Your task to perform on an android device: Open internet settings Image 0: 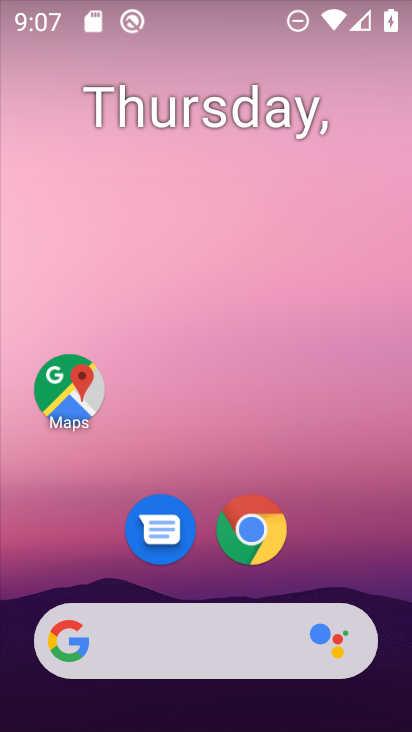
Step 0: drag from (207, 718) to (211, 155)
Your task to perform on an android device: Open internet settings Image 1: 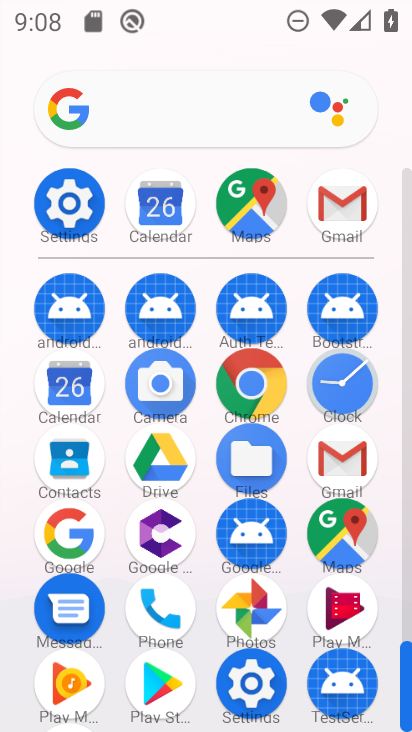
Step 1: click (69, 204)
Your task to perform on an android device: Open internet settings Image 2: 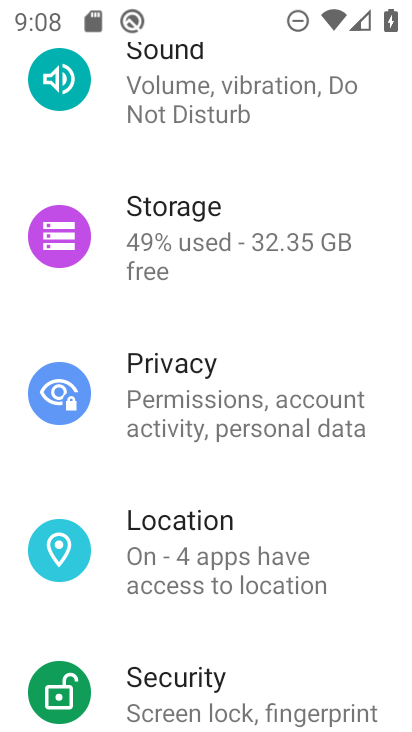
Step 2: drag from (346, 114) to (322, 631)
Your task to perform on an android device: Open internet settings Image 3: 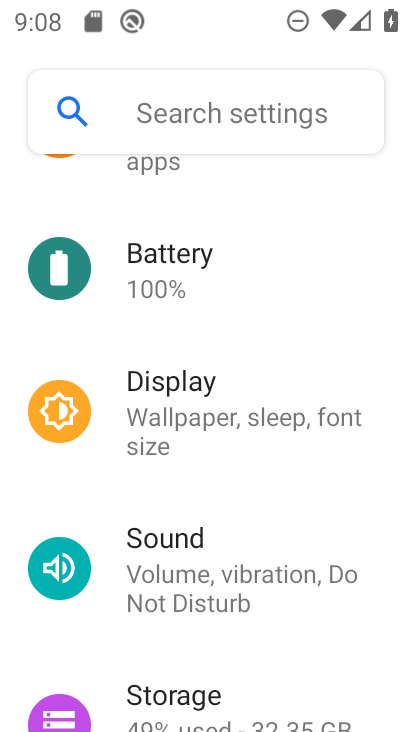
Step 3: drag from (283, 189) to (280, 638)
Your task to perform on an android device: Open internet settings Image 4: 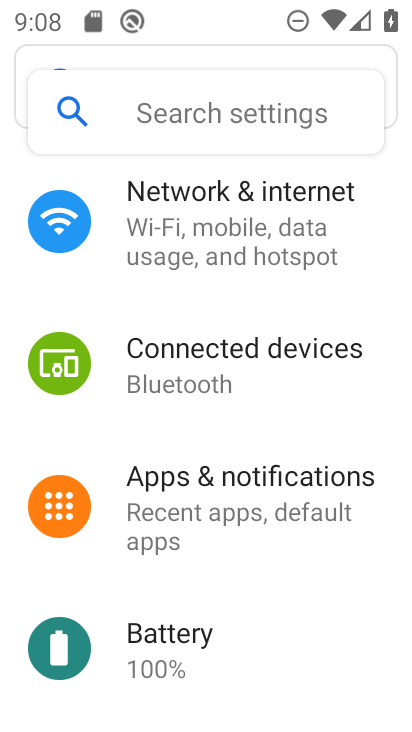
Step 4: drag from (275, 178) to (267, 619)
Your task to perform on an android device: Open internet settings Image 5: 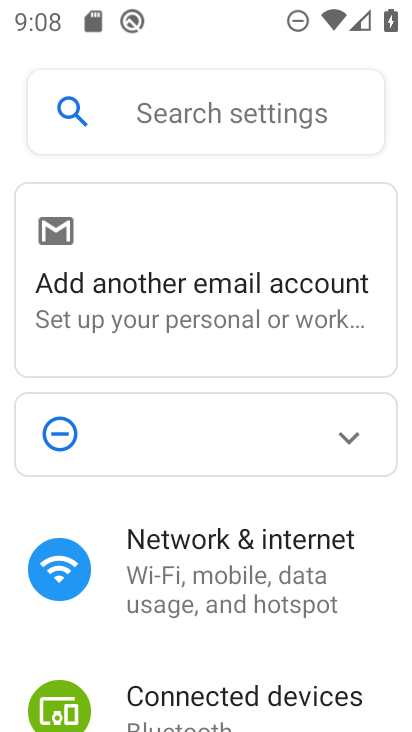
Step 5: click (226, 559)
Your task to perform on an android device: Open internet settings Image 6: 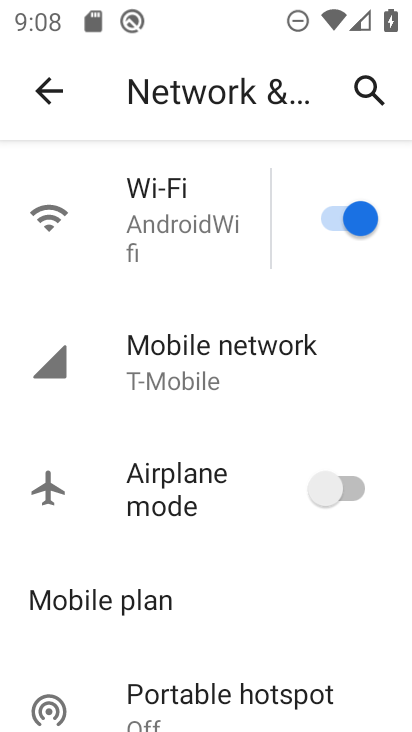
Step 6: task complete